Your task to perform on an android device: Go to Yahoo.com Image 0: 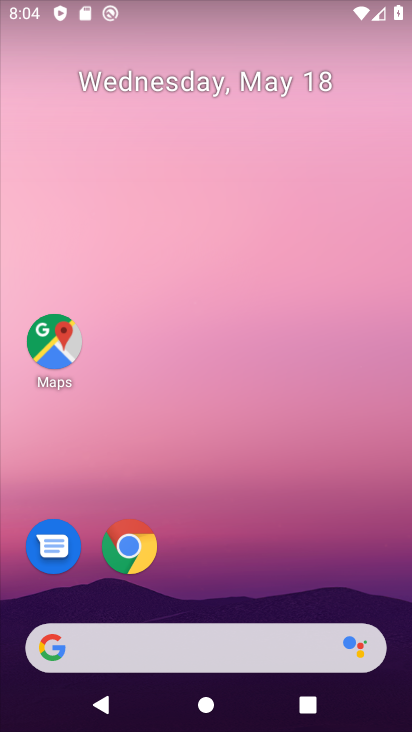
Step 0: press home button
Your task to perform on an android device: Go to Yahoo.com Image 1: 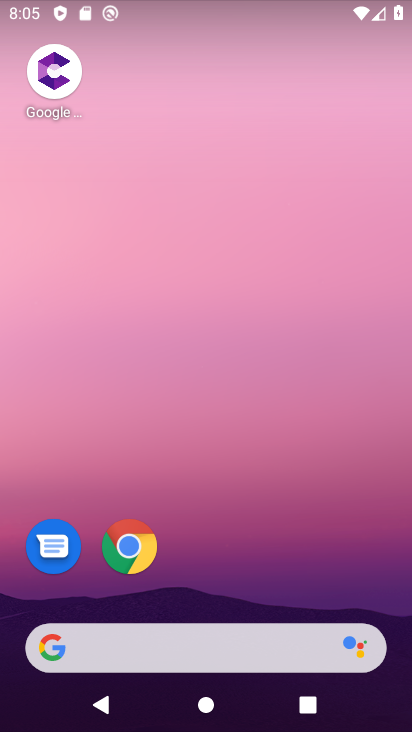
Step 1: drag from (249, 683) to (225, 212)
Your task to perform on an android device: Go to Yahoo.com Image 2: 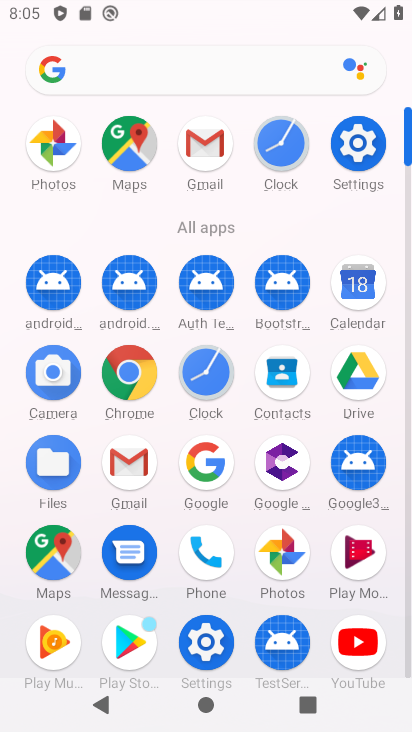
Step 2: click (120, 388)
Your task to perform on an android device: Go to Yahoo.com Image 3: 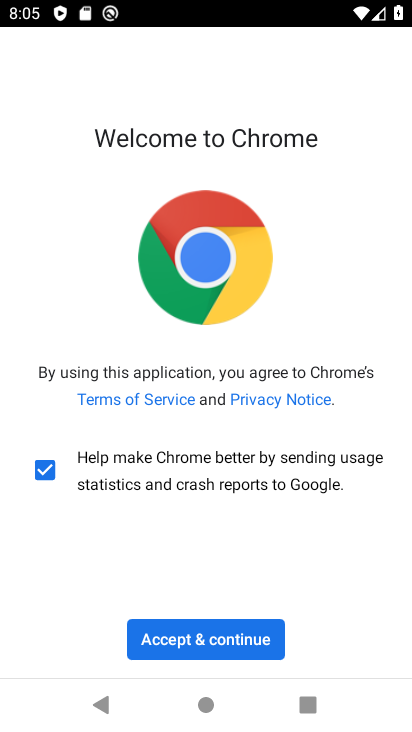
Step 3: click (173, 641)
Your task to perform on an android device: Go to Yahoo.com Image 4: 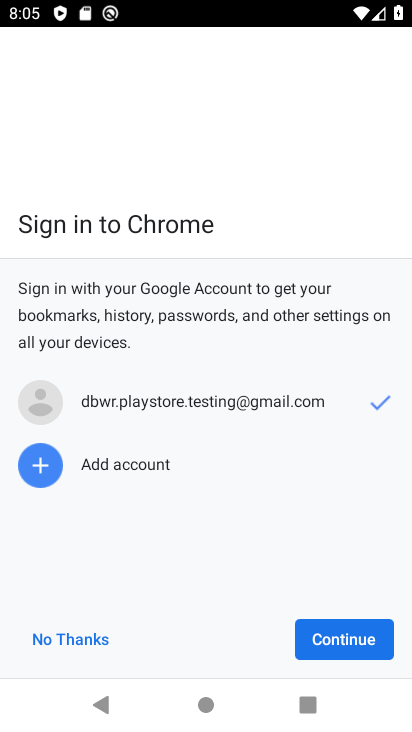
Step 4: click (357, 637)
Your task to perform on an android device: Go to Yahoo.com Image 5: 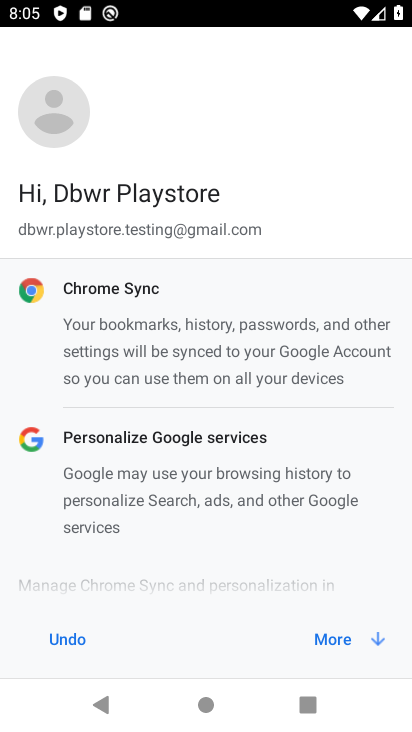
Step 5: click (375, 636)
Your task to perform on an android device: Go to Yahoo.com Image 6: 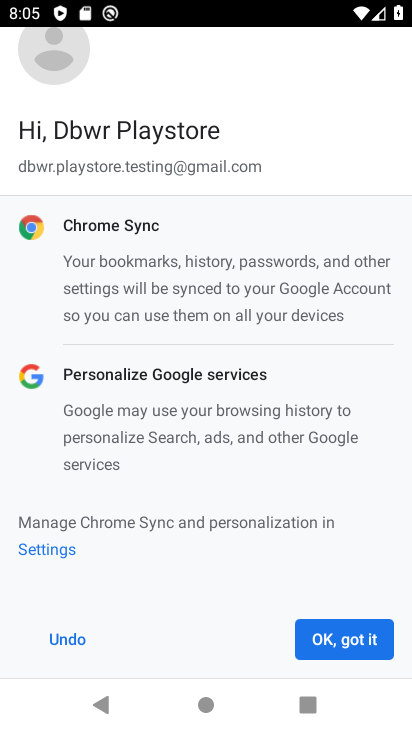
Step 6: click (377, 634)
Your task to perform on an android device: Go to Yahoo.com Image 7: 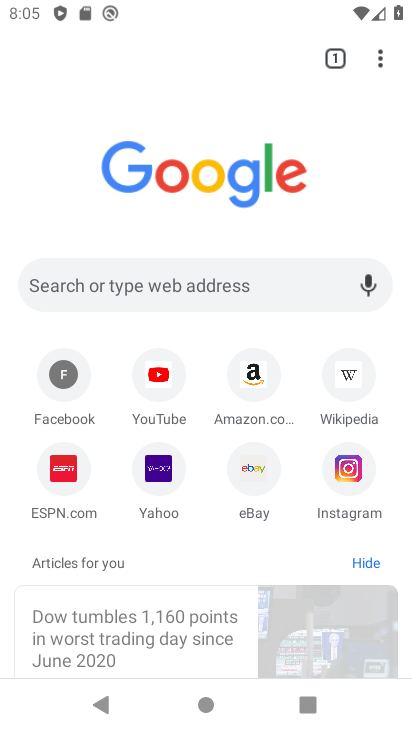
Step 7: click (161, 489)
Your task to perform on an android device: Go to Yahoo.com Image 8: 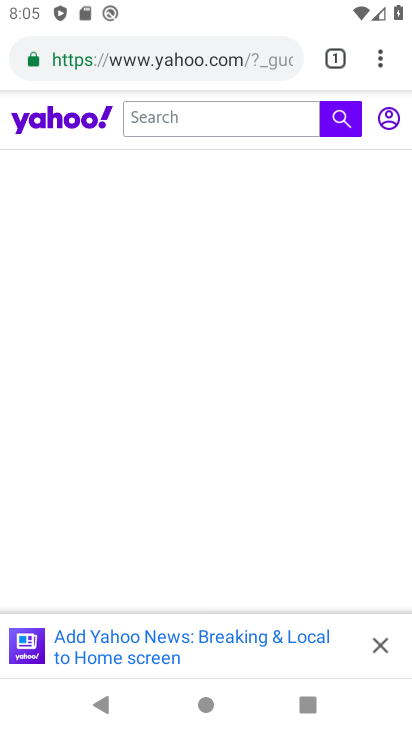
Step 8: task complete